Your task to perform on an android device: set the stopwatch Image 0: 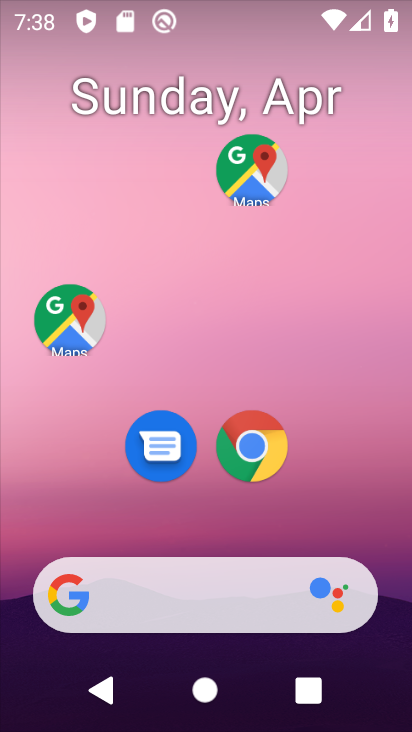
Step 0: drag from (208, 527) to (394, 24)
Your task to perform on an android device: set the stopwatch Image 1: 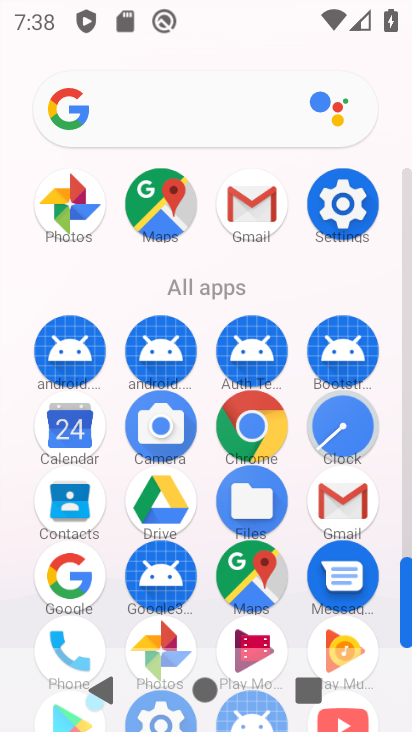
Step 1: click (350, 422)
Your task to perform on an android device: set the stopwatch Image 2: 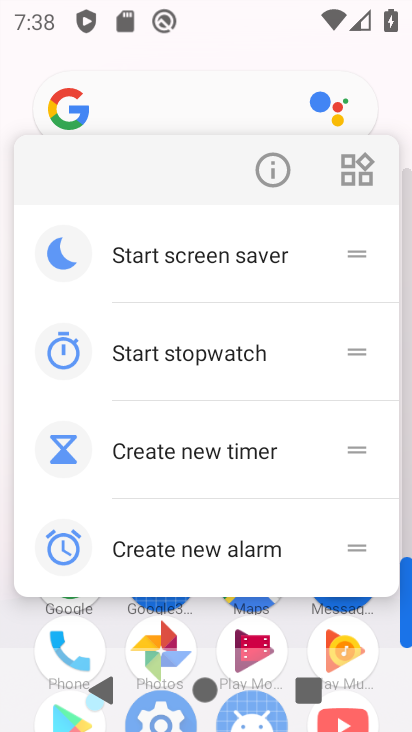
Step 2: click (391, 634)
Your task to perform on an android device: set the stopwatch Image 3: 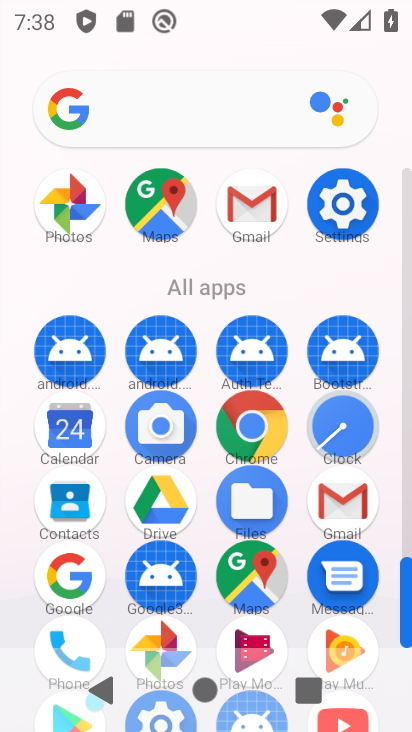
Step 3: click (363, 446)
Your task to perform on an android device: set the stopwatch Image 4: 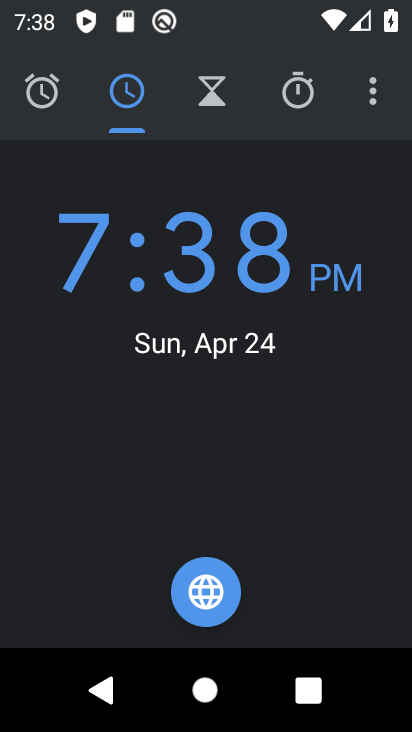
Step 4: click (296, 90)
Your task to perform on an android device: set the stopwatch Image 5: 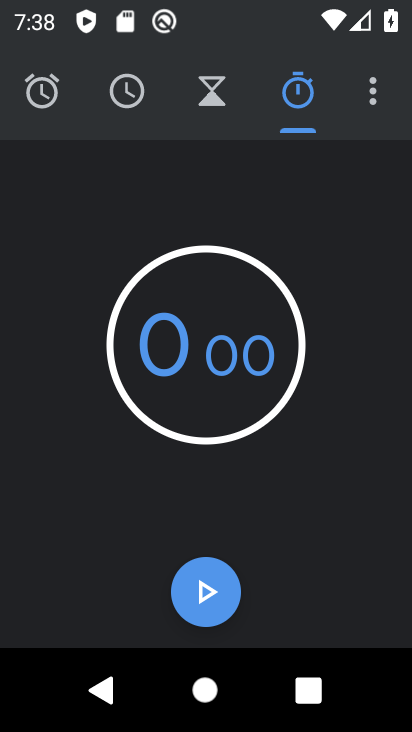
Step 5: click (196, 599)
Your task to perform on an android device: set the stopwatch Image 6: 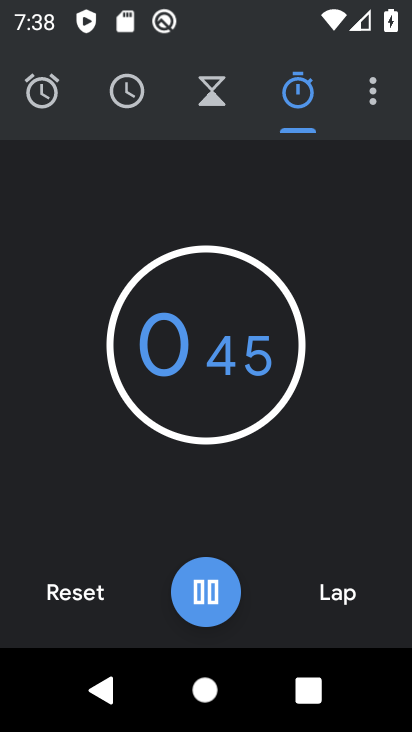
Step 6: click (196, 599)
Your task to perform on an android device: set the stopwatch Image 7: 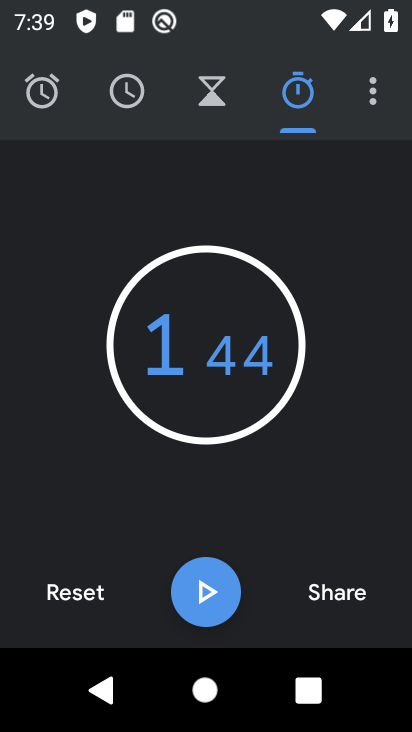
Step 7: task complete